Your task to perform on an android device: Open location settings Image 0: 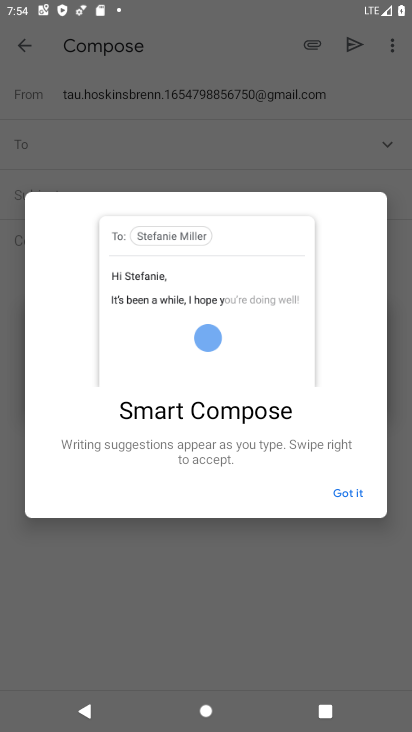
Step 0: press home button
Your task to perform on an android device: Open location settings Image 1: 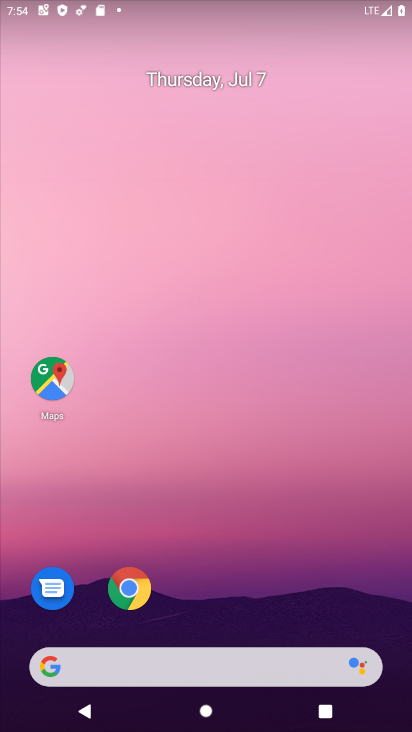
Step 1: drag from (366, 611) to (279, 163)
Your task to perform on an android device: Open location settings Image 2: 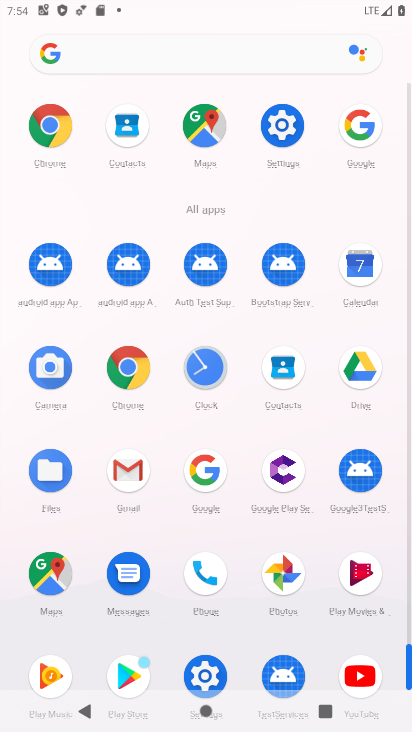
Step 2: click (286, 137)
Your task to perform on an android device: Open location settings Image 3: 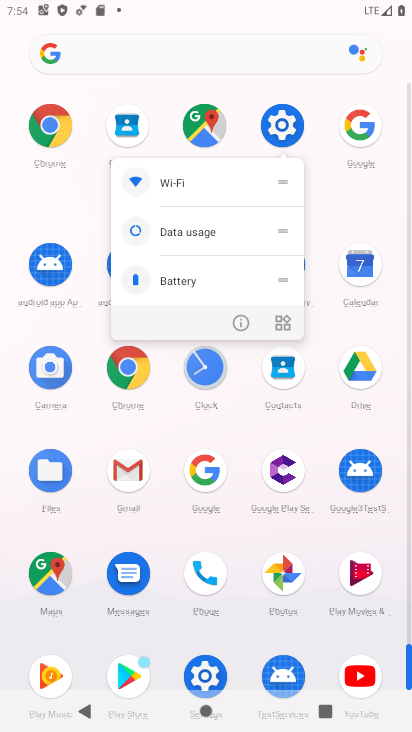
Step 3: click (280, 127)
Your task to perform on an android device: Open location settings Image 4: 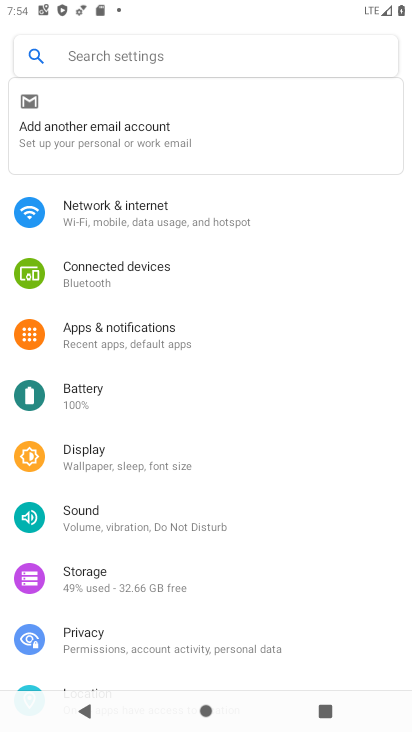
Step 4: drag from (278, 542) to (288, 160)
Your task to perform on an android device: Open location settings Image 5: 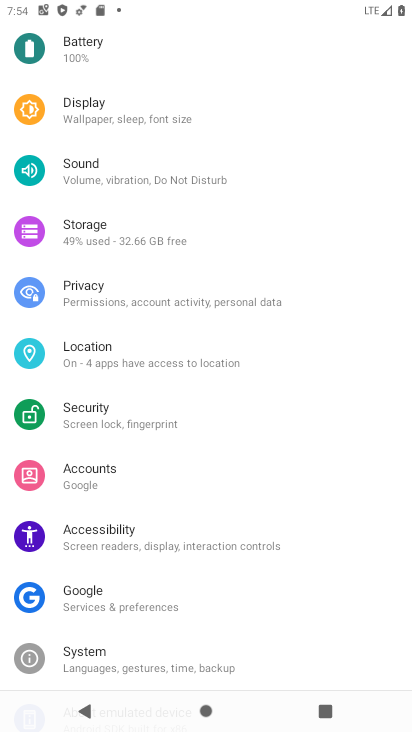
Step 5: drag from (260, 485) to (304, 643)
Your task to perform on an android device: Open location settings Image 6: 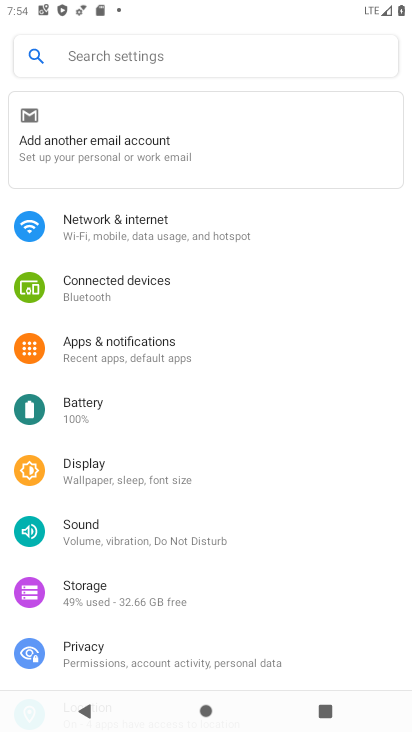
Step 6: drag from (178, 531) to (206, 177)
Your task to perform on an android device: Open location settings Image 7: 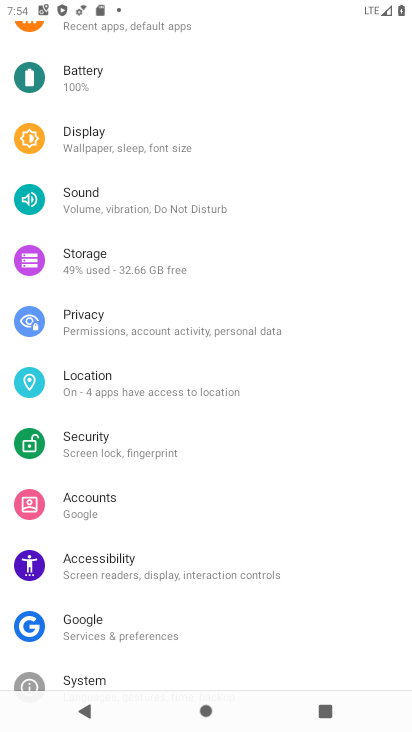
Step 7: click (111, 394)
Your task to perform on an android device: Open location settings Image 8: 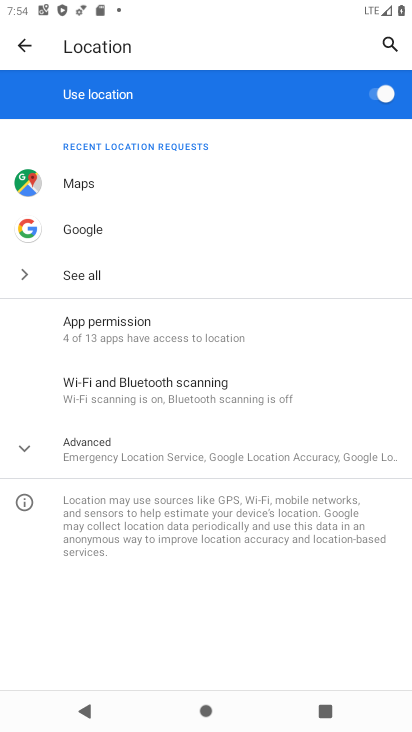
Step 8: task complete